Your task to perform on an android device: turn off translation in the chrome app Image 0: 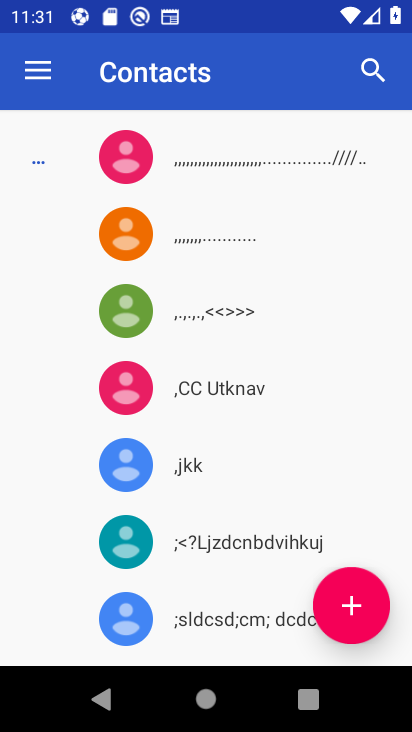
Step 0: press home button
Your task to perform on an android device: turn off translation in the chrome app Image 1: 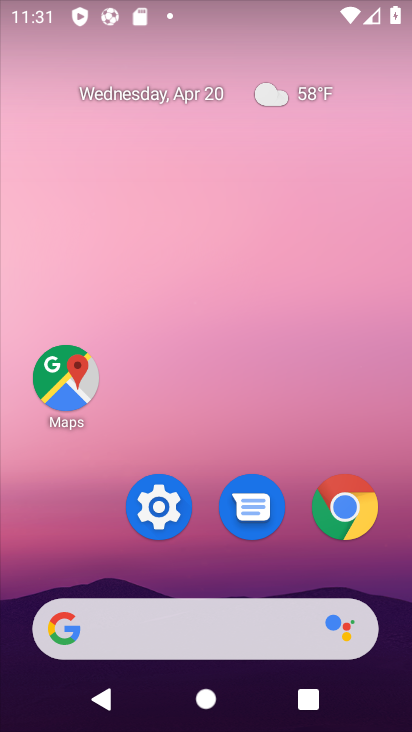
Step 1: drag from (259, 703) to (235, 152)
Your task to perform on an android device: turn off translation in the chrome app Image 2: 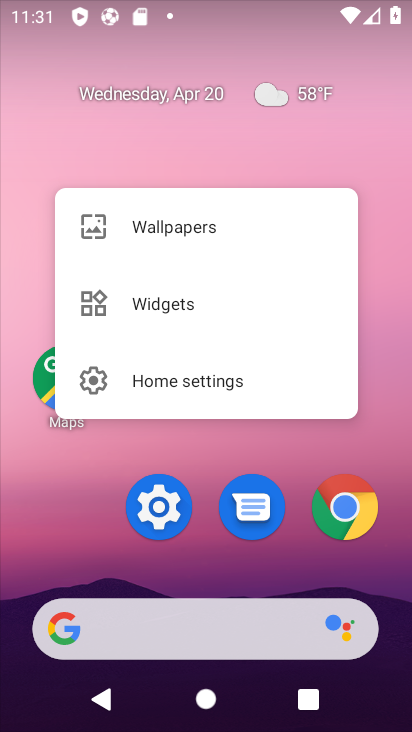
Step 2: click (154, 146)
Your task to perform on an android device: turn off translation in the chrome app Image 3: 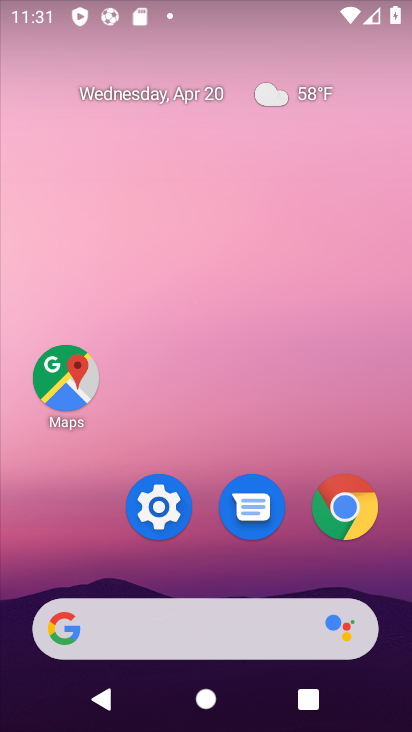
Step 3: drag from (264, 718) to (258, 10)
Your task to perform on an android device: turn off translation in the chrome app Image 4: 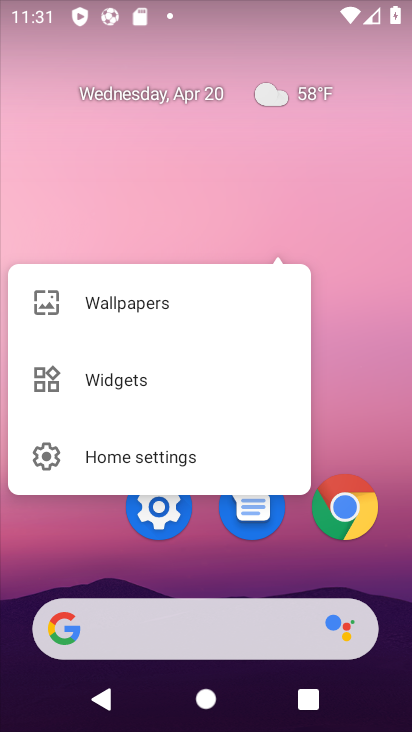
Step 4: click (338, 264)
Your task to perform on an android device: turn off translation in the chrome app Image 5: 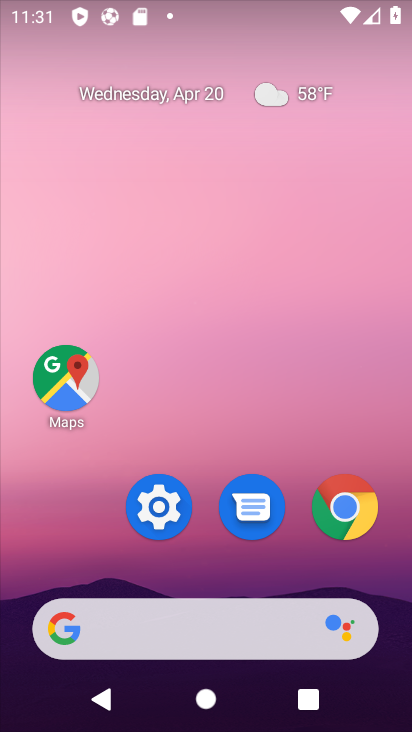
Step 5: drag from (294, 358) to (207, 0)
Your task to perform on an android device: turn off translation in the chrome app Image 6: 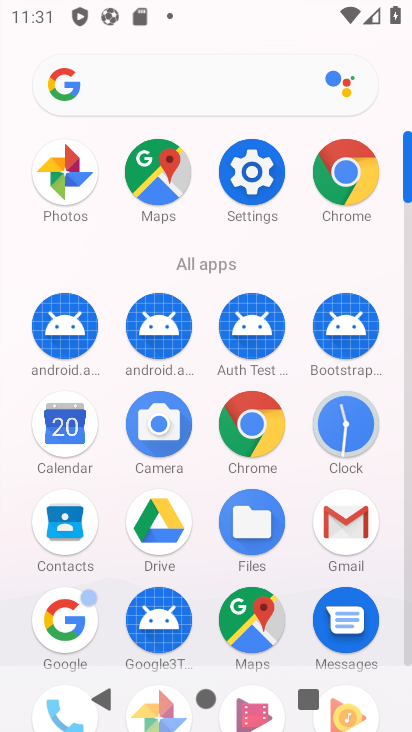
Step 6: click (329, 169)
Your task to perform on an android device: turn off translation in the chrome app Image 7: 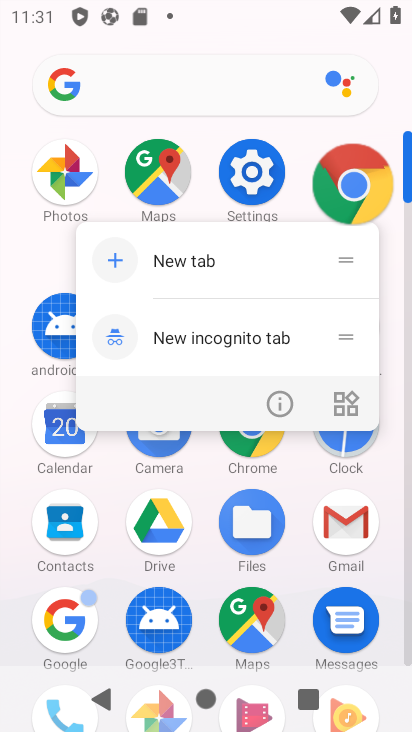
Step 7: click (337, 187)
Your task to perform on an android device: turn off translation in the chrome app Image 8: 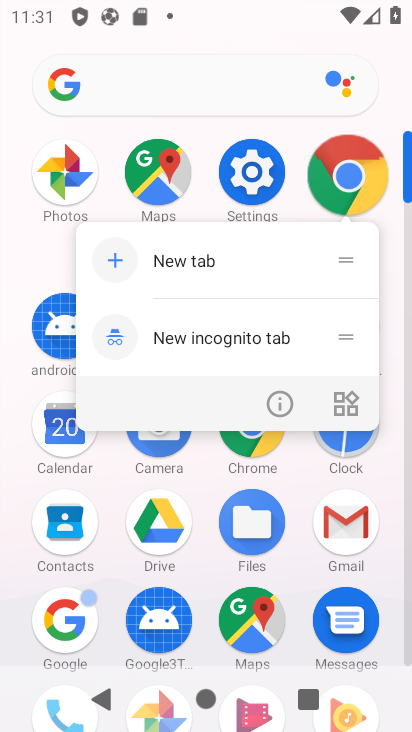
Step 8: click (339, 190)
Your task to perform on an android device: turn off translation in the chrome app Image 9: 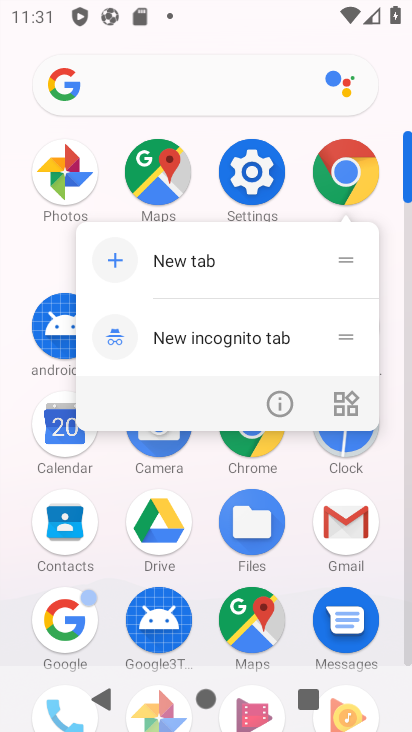
Step 9: click (174, 256)
Your task to perform on an android device: turn off translation in the chrome app Image 10: 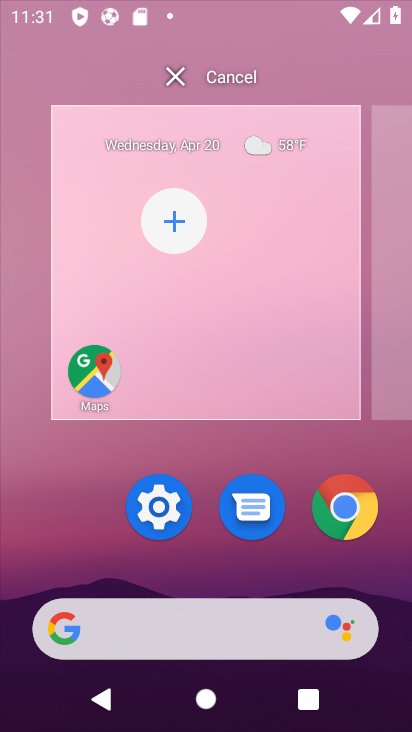
Step 10: click (174, 260)
Your task to perform on an android device: turn off translation in the chrome app Image 11: 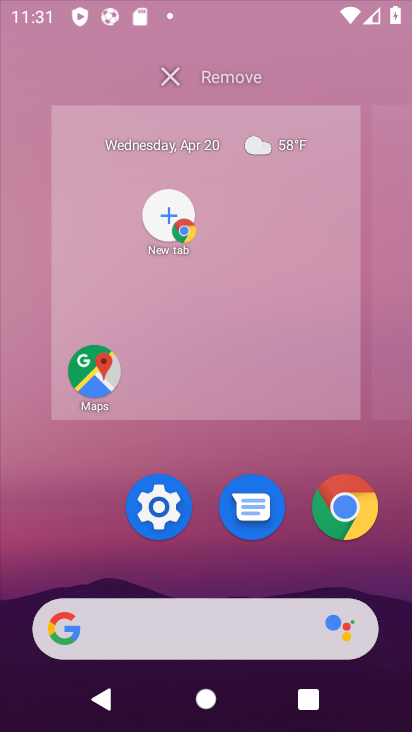
Step 11: click (198, 235)
Your task to perform on an android device: turn off translation in the chrome app Image 12: 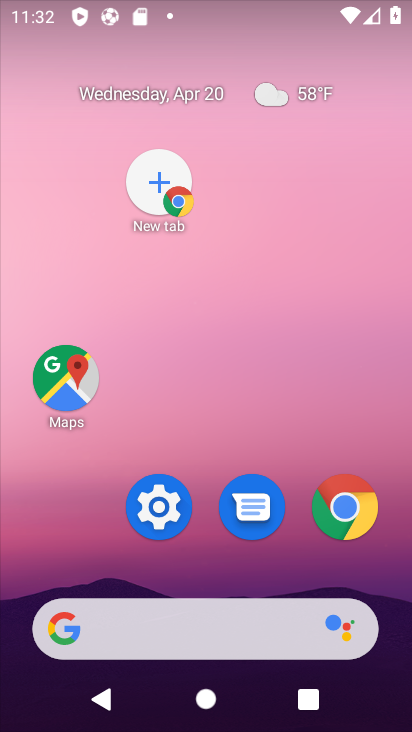
Step 12: click (199, 233)
Your task to perform on an android device: turn off translation in the chrome app Image 13: 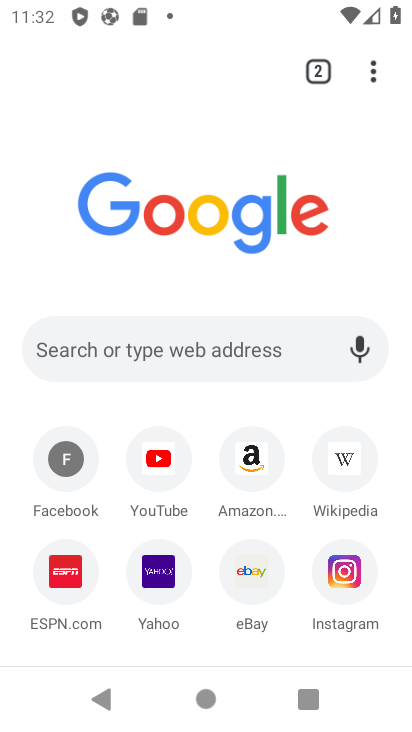
Step 13: drag from (374, 70) to (226, 204)
Your task to perform on an android device: turn off translation in the chrome app Image 14: 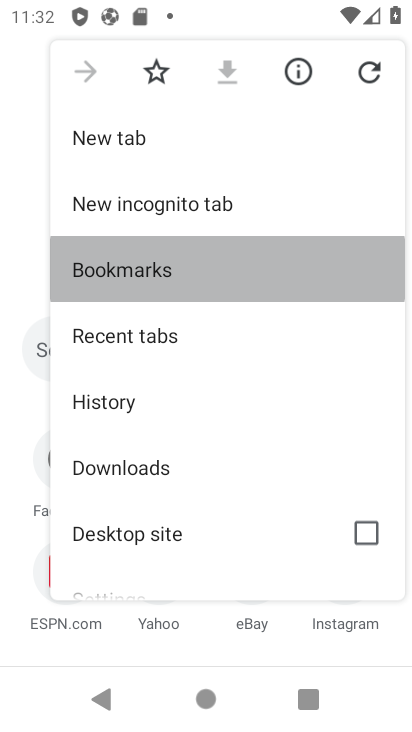
Step 14: drag from (160, 542) to (181, 244)
Your task to perform on an android device: turn off translation in the chrome app Image 15: 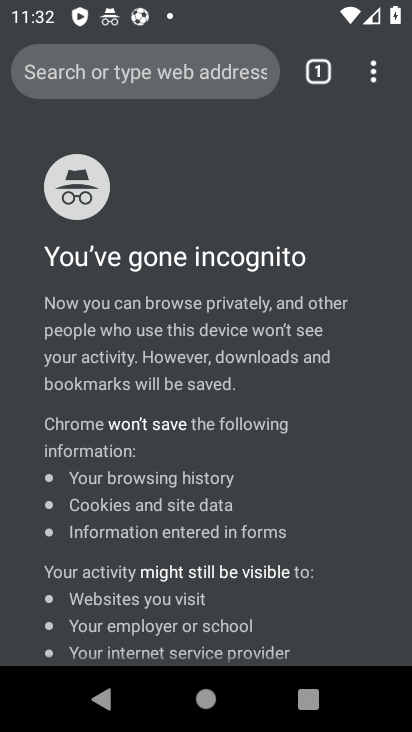
Step 15: drag from (373, 77) to (182, 208)
Your task to perform on an android device: turn off translation in the chrome app Image 16: 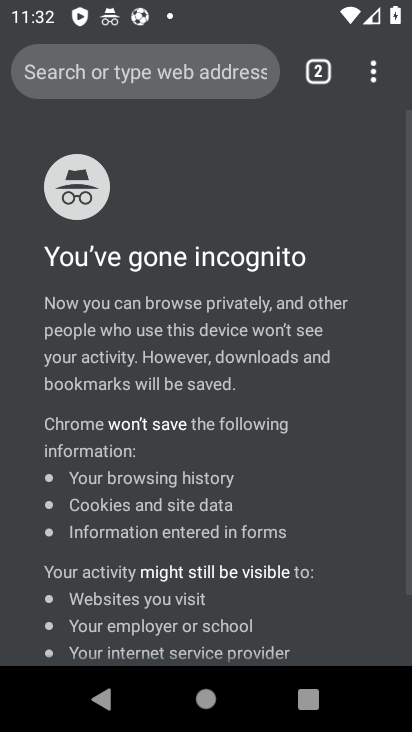
Step 16: drag from (378, 71) to (191, 539)
Your task to perform on an android device: turn off translation in the chrome app Image 17: 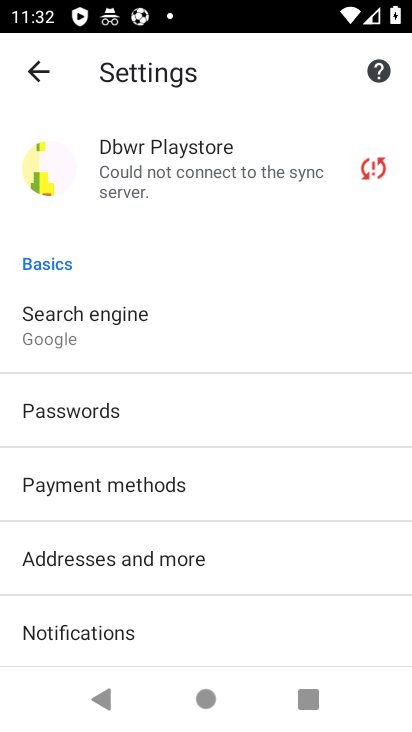
Step 17: drag from (106, 333) to (115, 165)
Your task to perform on an android device: turn off translation in the chrome app Image 18: 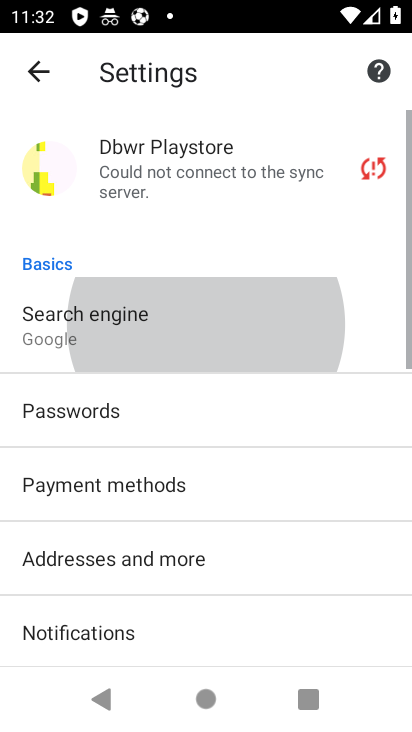
Step 18: drag from (88, 443) to (68, 231)
Your task to perform on an android device: turn off translation in the chrome app Image 19: 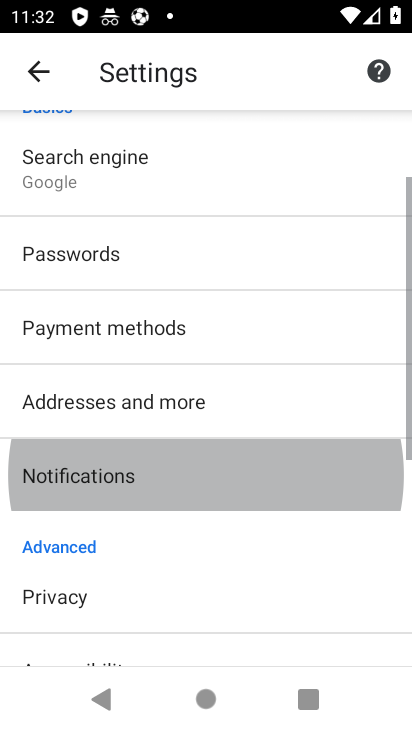
Step 19: drag from (113, 427) to (101, 289)
Your task to perform on an android device: turn off translation in the chrome app Image 20: 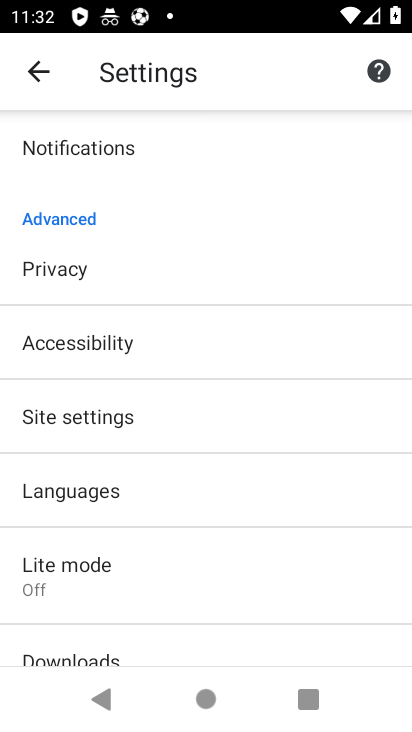
Step 20: click (75, 482)
Your task to perform on an android device: turn off translation in the chrome app Image 21: 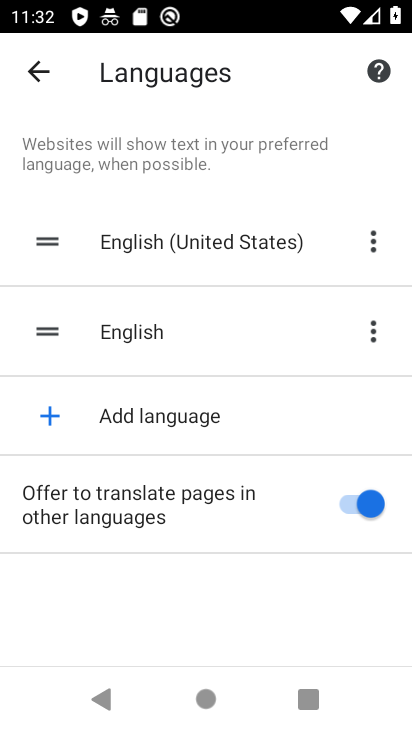
Step 21: click (370, 504)
Your task to perform on an android device: turn off translation in the chrome app Image 22: 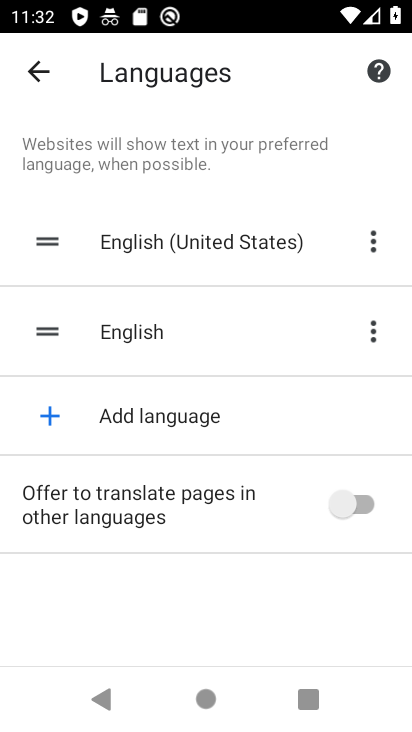
Step 22: task complete